Your task to perform on an android device: search for starred emails in the gmail app Image 0: 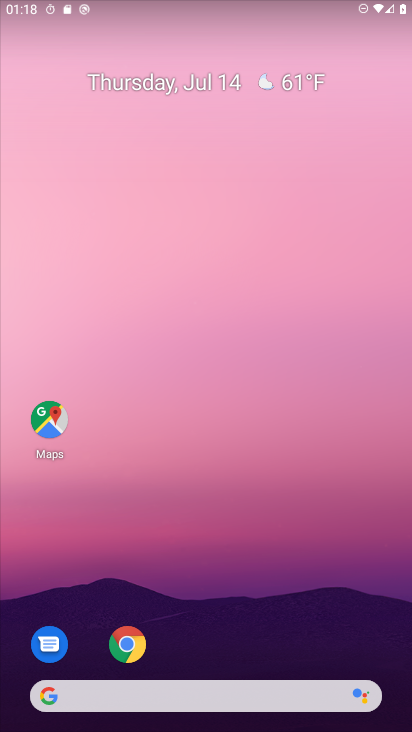
Step 0: drag from (330, 577) to (227, 115)
Your task to perform on an android device: search for starred emails in the gmail app Image 1: 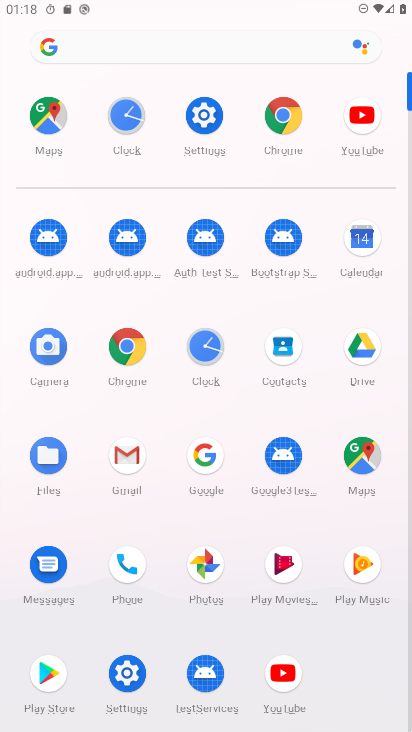
Step 1: click (130, 449)
Your task to perform on an android device: search for starred emails in the gmail app Image 2: 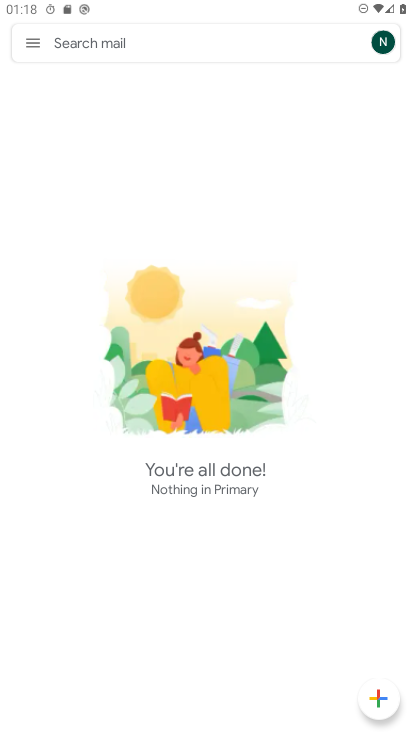
Step 2: click (31, 38)
Your task to perform on an android device: search for starred emails in the gmail app Image 3: 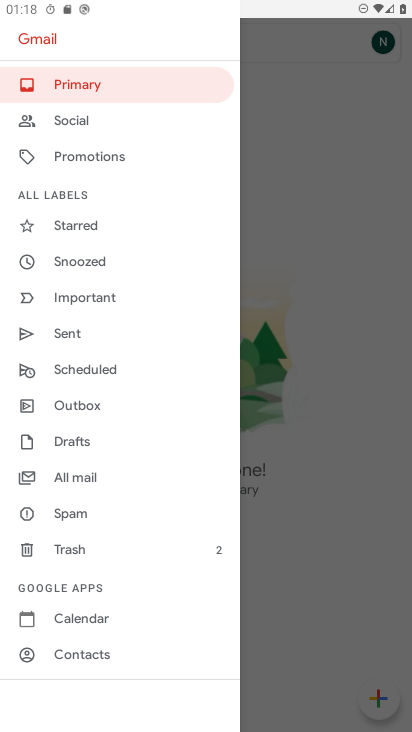
Step 3: click (73, 223)
Your task to perform on an android device: search for starred emails in the gmail app Image 4: 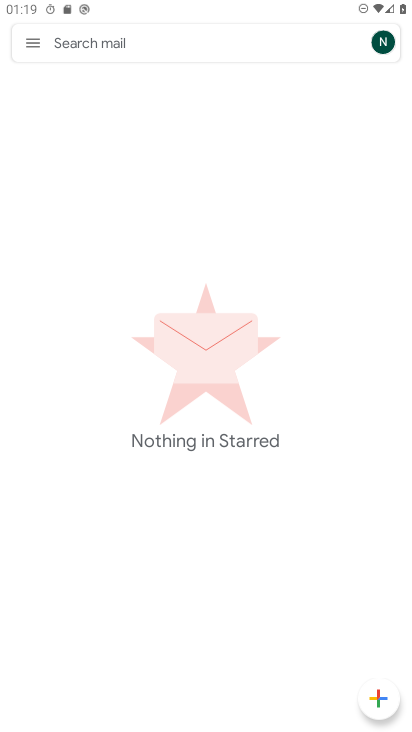
Step 4: task complete